Your task to perform on an android device: turn off notifications in google photos Image 0: 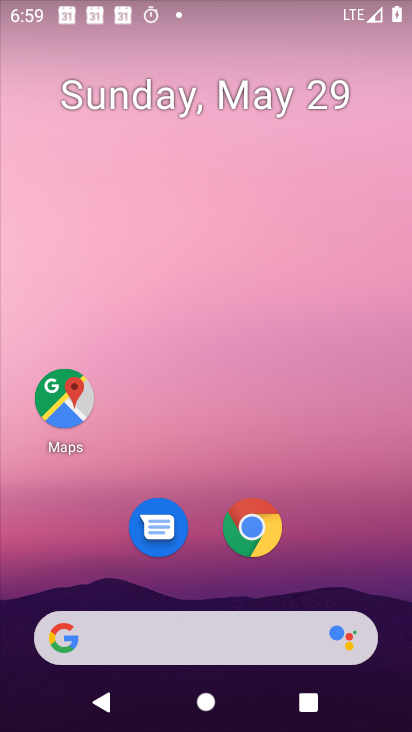
Step 0: click (286, 60)
Your task to perform on an android device: turn off notifications in google photos Image 1: 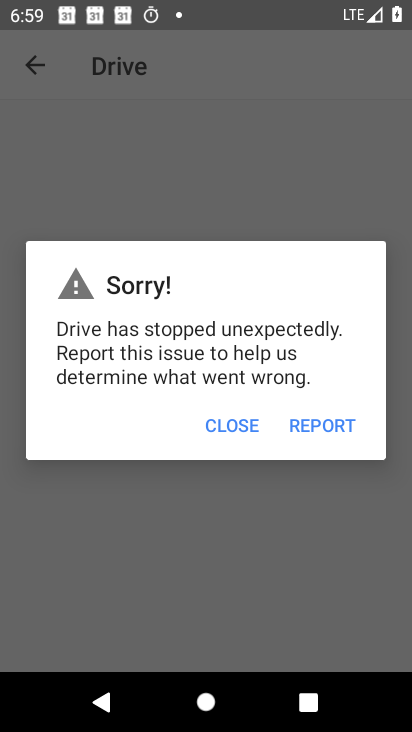
Step 1: press home button
Your task to perform on an android device: turn off notifications in google photos Image 2: 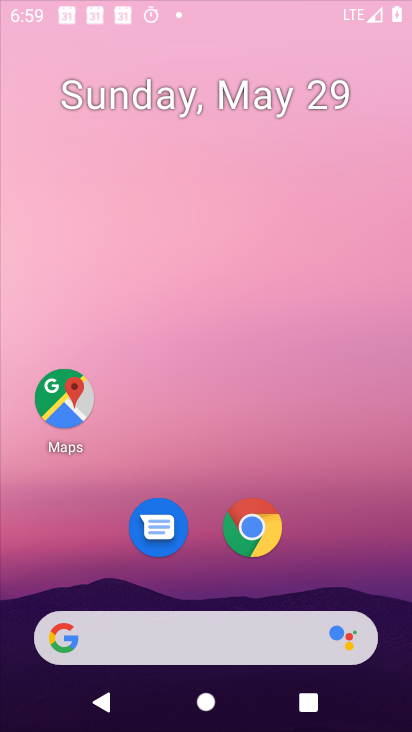
Step 2: drag from (343, 666) to (315, 30)
Your task to perform on an android device: turn off notifications in google photos Image 3: 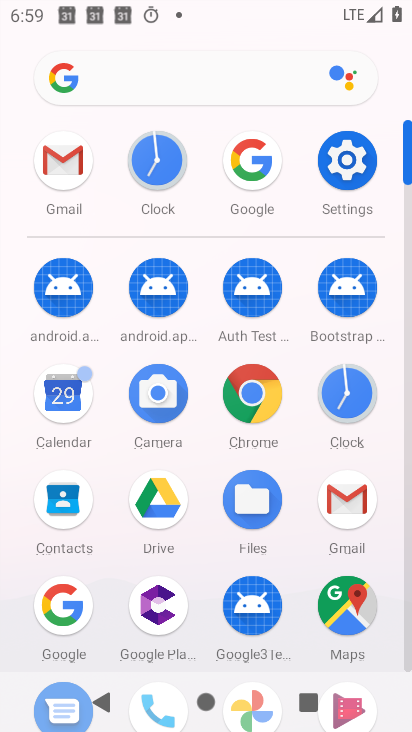
Step 3: drag from (179, 629) to (189, 109)
Your task to perform on an android device: turn off notifications in google photos Image 4: 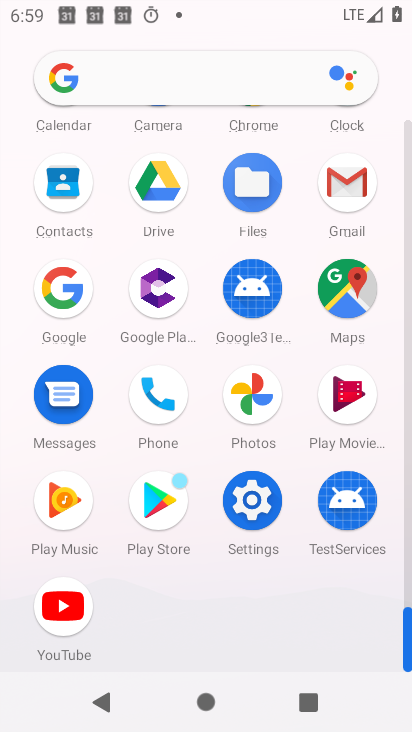
Step 4: click (272, 388)
Your task to perform on an android device: turn off notifications in google photos Image 5: 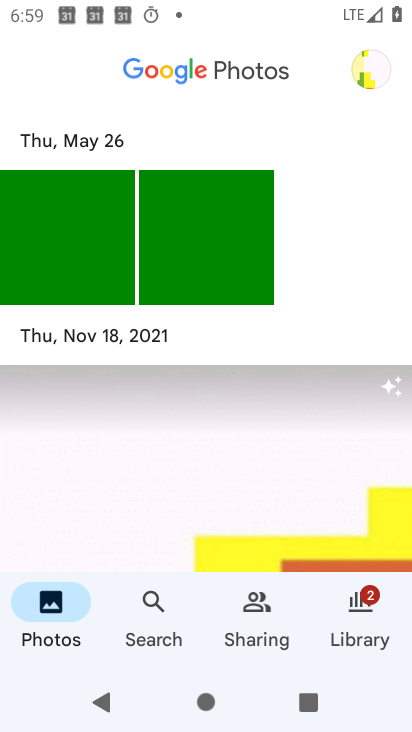
Step 5: click (384, 72)
Your task to perform on an android device: turn off notifications in google photos Image 6: 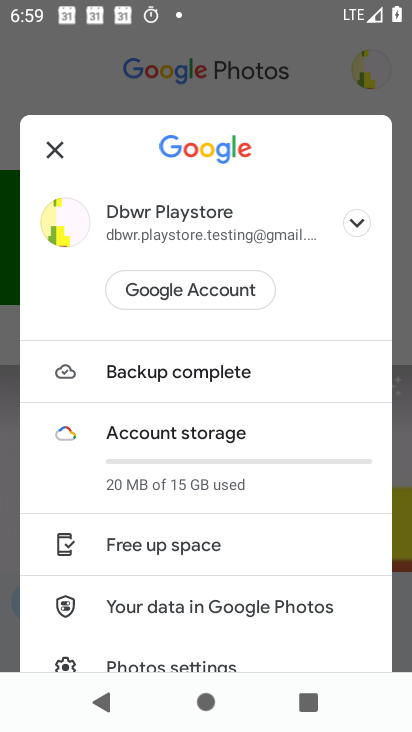
Step 6: drag from (196, 601) to (243, 191)
Your task to perform on an android device: turn off notifications in google photos Image 7: 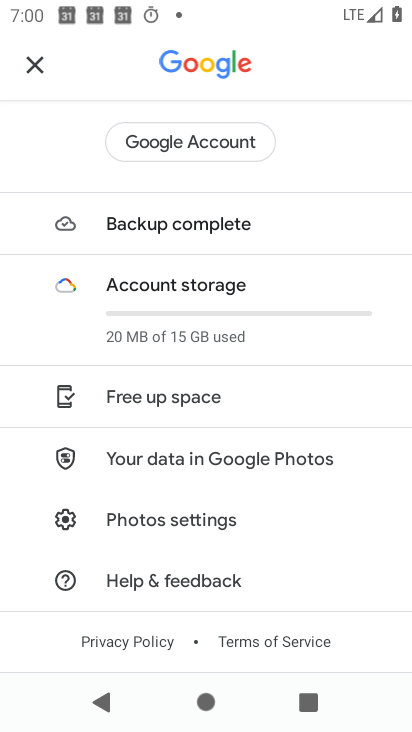
Step 7: click (184, 516)
Your task to perform on an android device: turn off notifications in google photos Image 8: 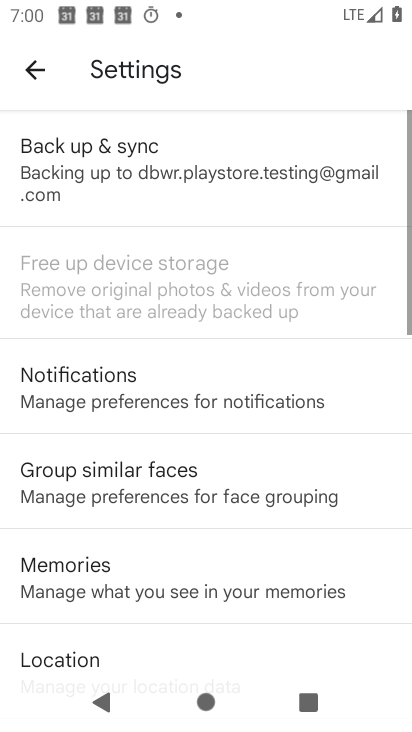
Step 8: click (181, 409)
Your task to perform on an android device: turn off notifications in google photos Image 9: 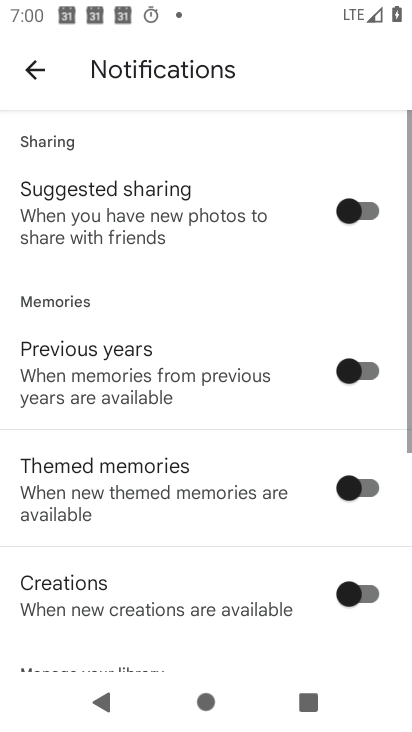
Step 9: task complete